Your task to perform on an android device: change the clock display to analog Image 0: 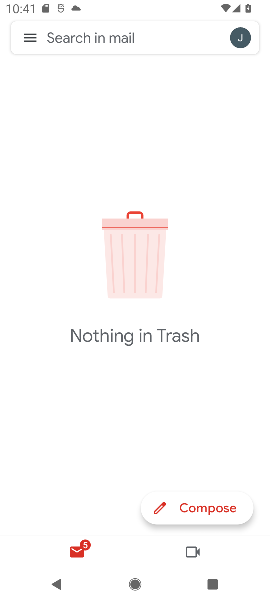
Step 0: press home button
Your task to perform on an android device: change the clock display to analog Image 1: 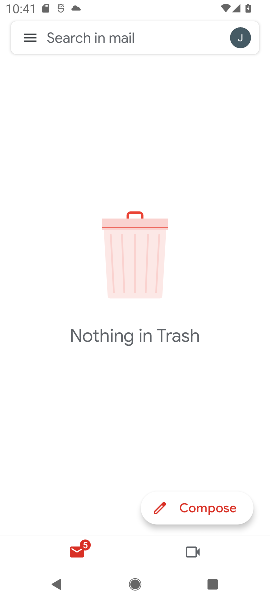
Step 1: press home button
Your task to perform on an android device: change the clock display to analog Image 2: 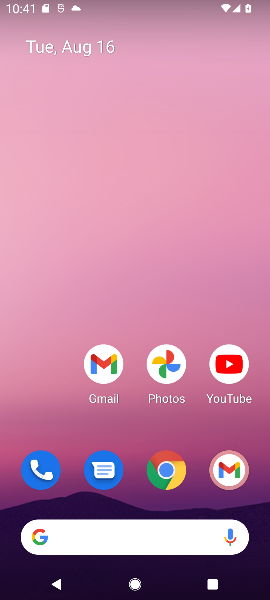
Step 2: drag from (52, 404) to (102, 11)
Your task to perform on an android device: change the clock display to analog Image 3: 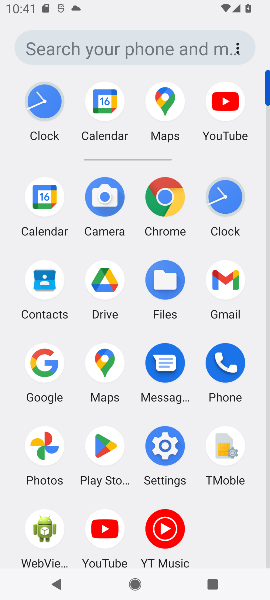
Step 3: click (45, 98)
Your task to perform on an android device: change the clock display to analog Image 4: 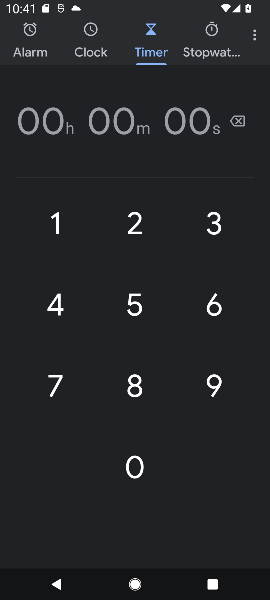
Step 4: click (107, 47)
Your task to perform on an android device: change the clock display to analog Image 5: 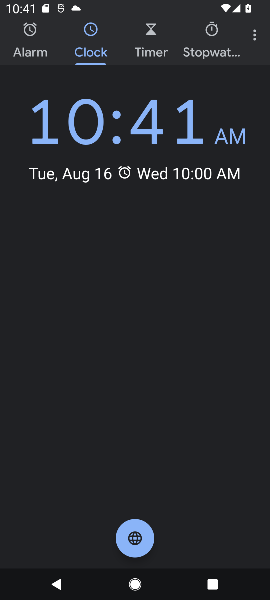
Step 5: click (254, 32)
Your task to perform on an android device: change the clock display to analog Image 6: 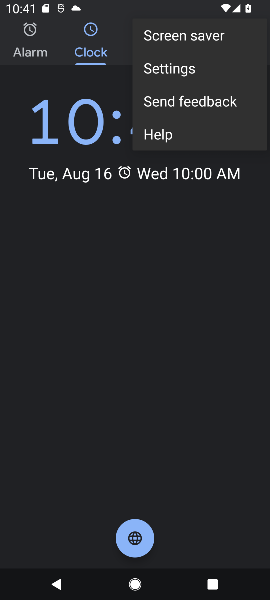
Step 6: click (202, 63)
Your task to perform on an android device: change the clock display to analog Image 7: 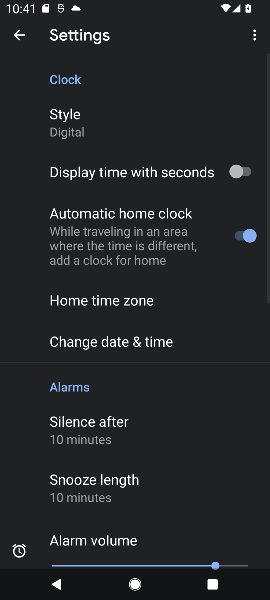
Step 7: click (73, 123)
Your task to perform on an android device: change the clock display to analog Image 8: 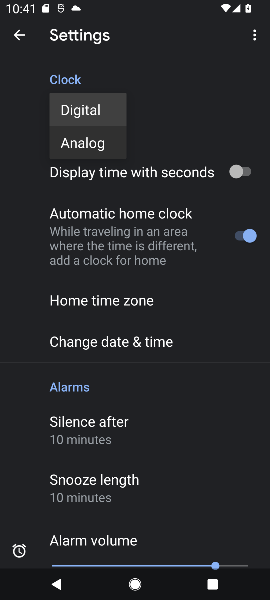
Step 8: click (87, 140)
Your task to perform on an android device: change the clock display to analog Image 9: 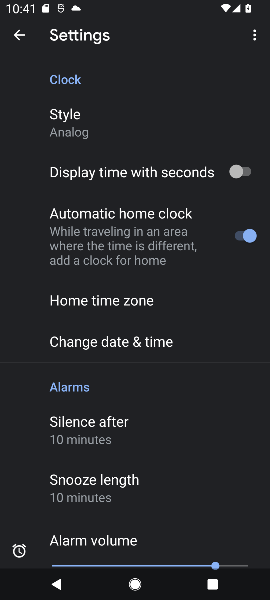
Step 9: click (20, 36)
Your task to perform on an android device: change the clock display to analog Image 10: 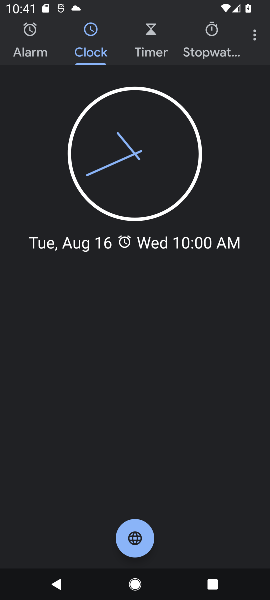
Step 10: task complete